Your task to perform on an android device: manage bookmarks in the chrome app Image 0: 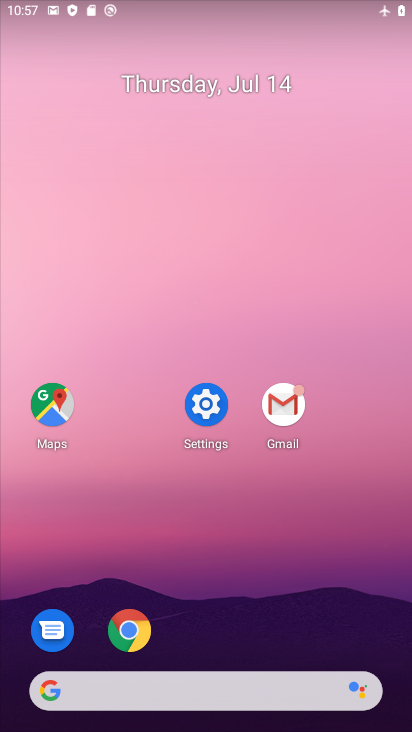
Step 0: click (141, 620)
Your task to perform on an android device: manage bookmarks in the chrome app Image 1: 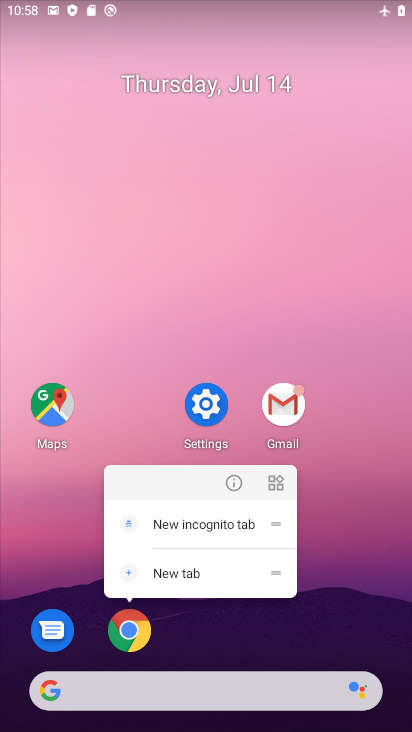
Step 1: click (138, 626)
Your task to perform on an android device: manage bookmarks in the chrome app Image 2: 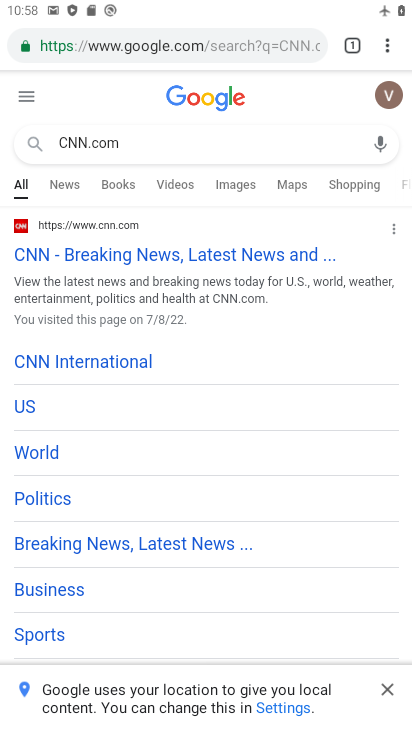
Step 2: click (385, 43)
Your task to perform on an android device: manage bookmarks in the chrome app Image 3: 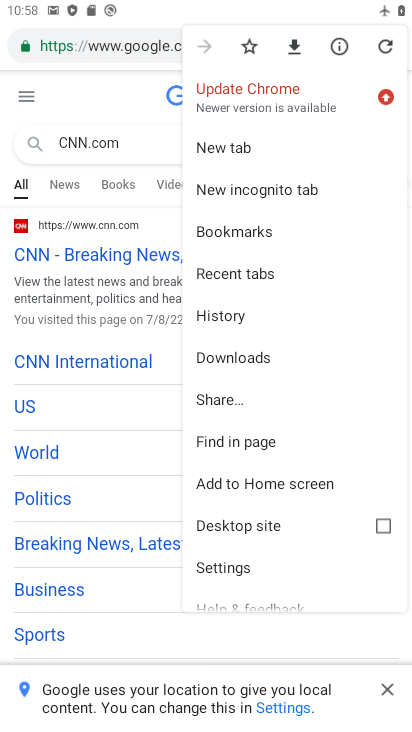
Step 3: click (244, 237)
Your task to perform on an android device: manage bookmarks in the chrome app Image 4: 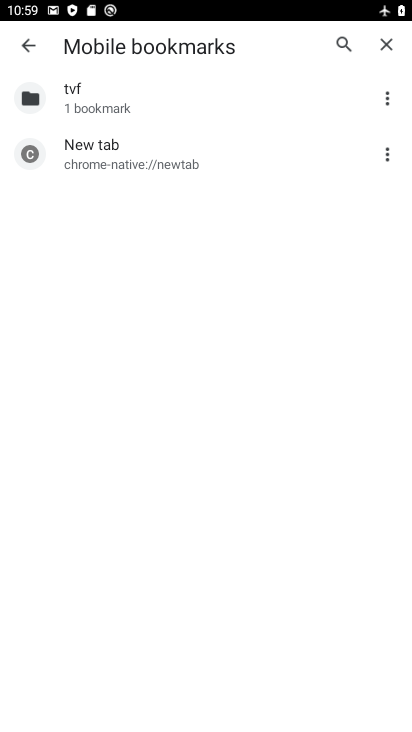
Step 4: click (89, 110)
Your task to perform on an android device: manage bookmarks in the chrome app Image 5: 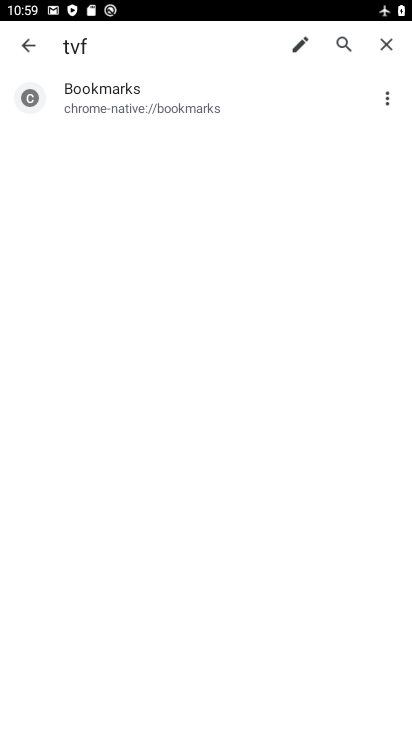
Step 5: click (383, 92)
Your task to perform on an android device: manage bookmarks in the chrome app Image 6: 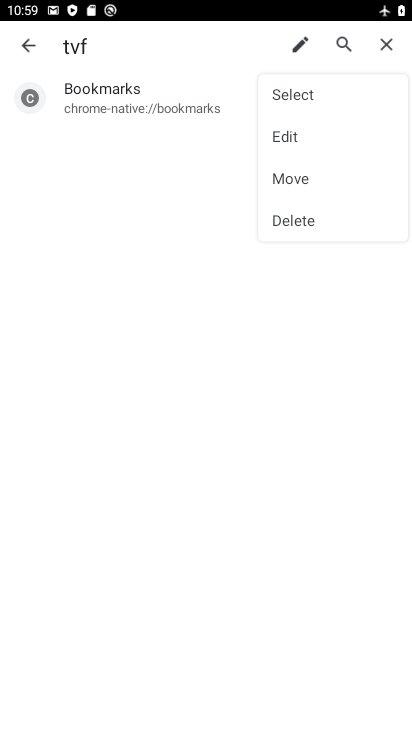
Step 6: click (294, 222)
Your task to perform on an android device: manage bookmarks in the chrome app Image 7: 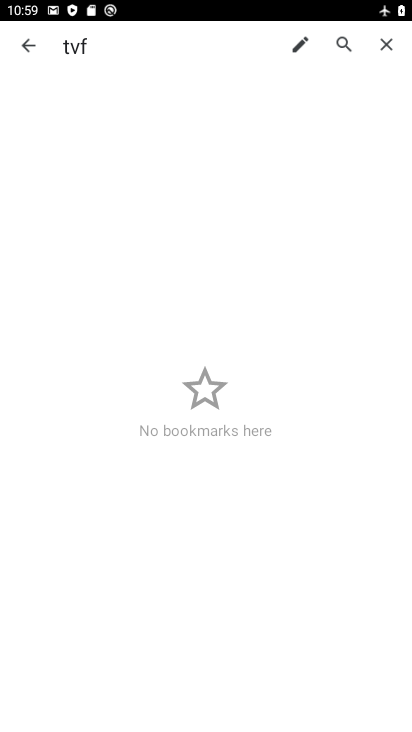
Step 7: task complete